Your task to perform on an android device: set the stopwatch Image 0: 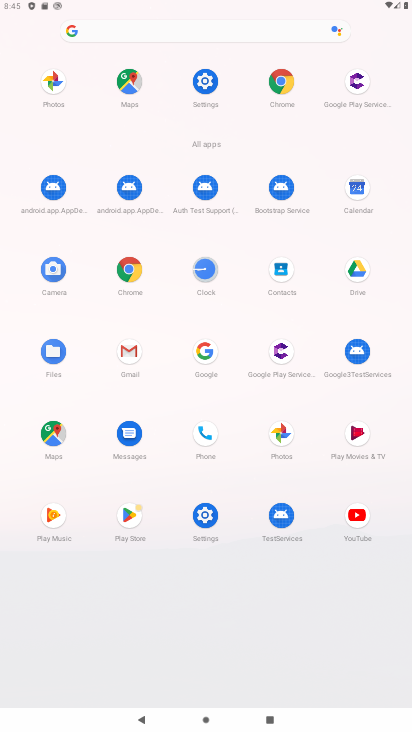
Step 0: click (209, 269)
Your task to perform on an android device: set the stopwatch Image 1: 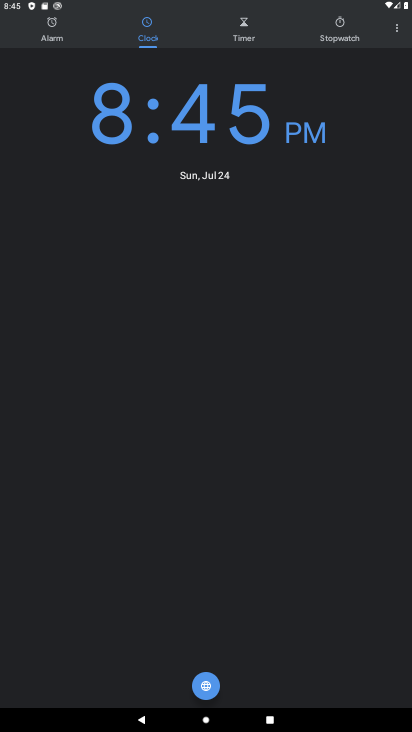
Step 1: click (319, 29)
Your task to perform on an android device: set the stopwatch Image 2: 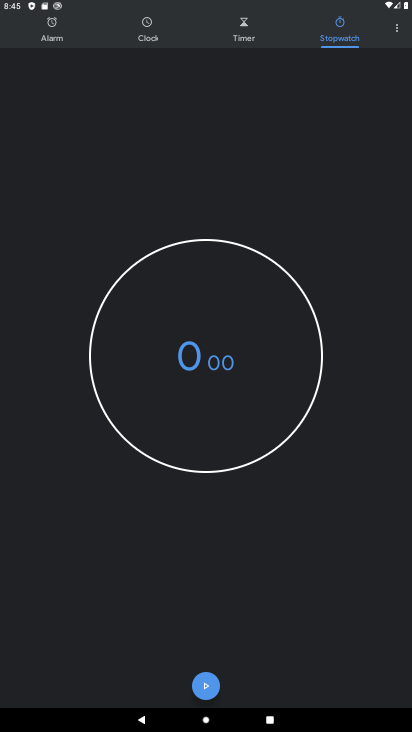
Step 2: click (225, 370)
Your task to perform on an android device: set the stopwatch Image 3: 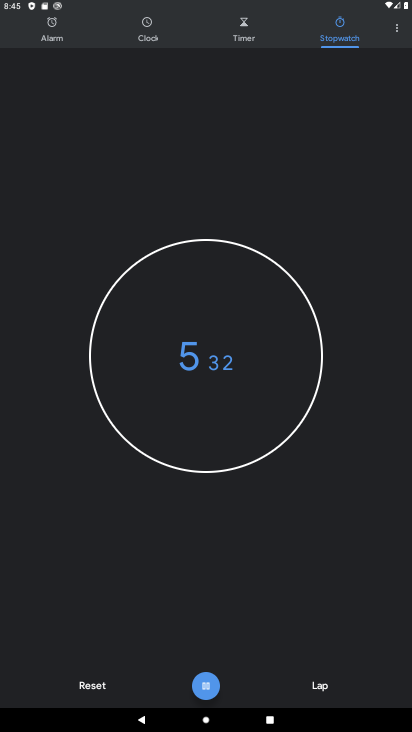
Step 3: click (195, 377)
Your task to perform on an android device: set the stopwatch Image 4: 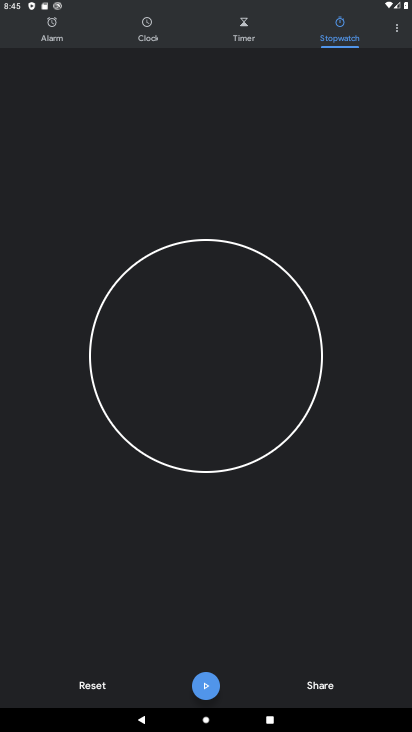
Step 4: task complete